Your task to perform on an android device: Go to location settings Image 0: 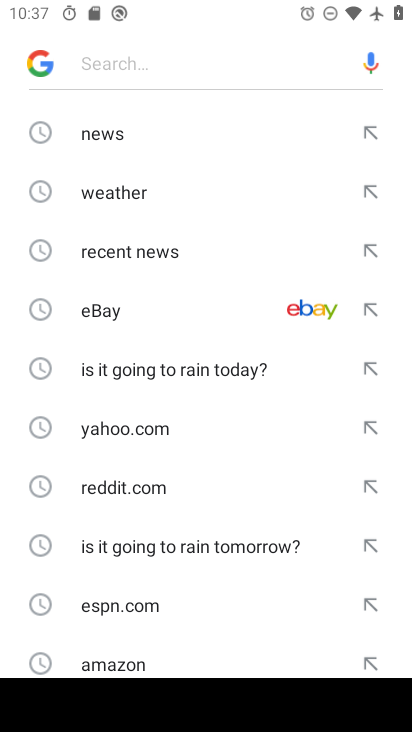
Step 0: press home button
Your task to perform on an android device: Go to location settings Image 1: 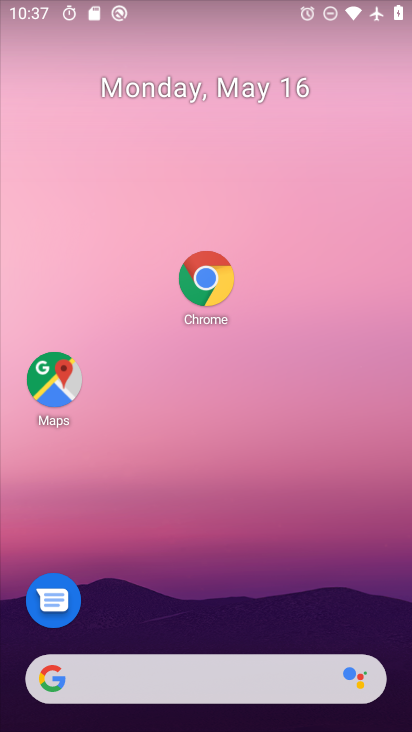
Step 1: drag from (238, 583) to (333, 133)
Your task to perform on an android device: Go to location settings Image 2: 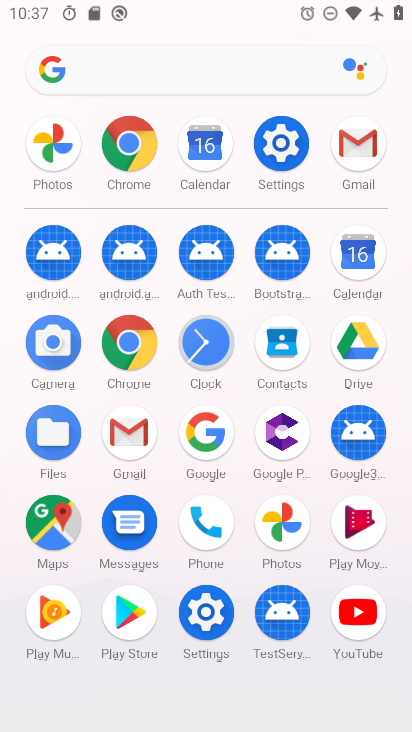
Step 2: click (286, 145)
Your task to perform on an android device: Go to location settings Image 3: 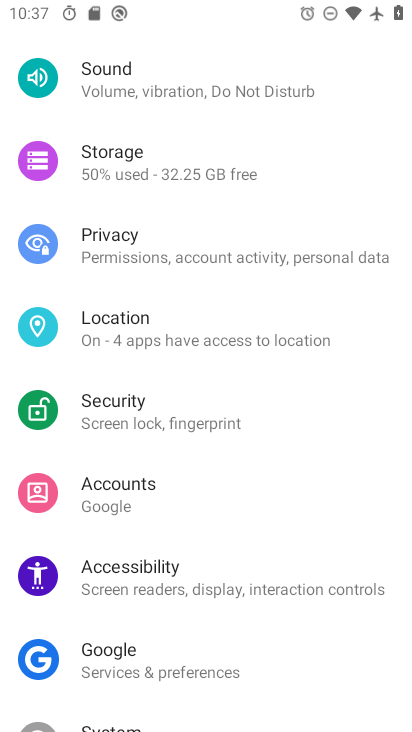
Step 3: click (147, 324)
Your task to perform on an android device: Go to location settings Image 4: 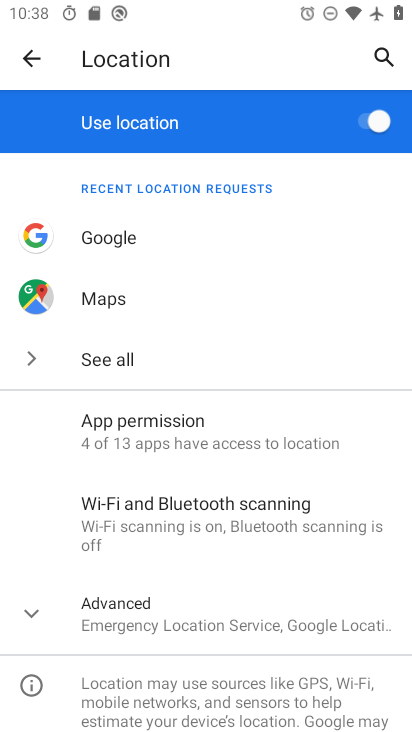
Step 4: task complete